Your task to perform on an android device: turn on bluetooth scan Image 0: 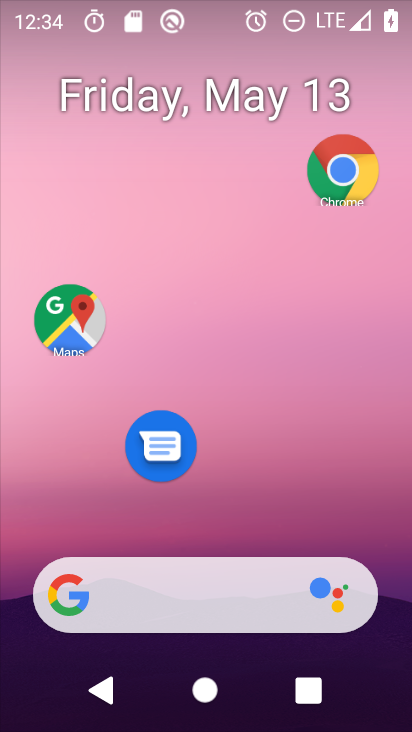
Step 0: drag from (250, 547) to (268, 28)
Your task to perform on an android device: turn on bluetooth scan Image 1: 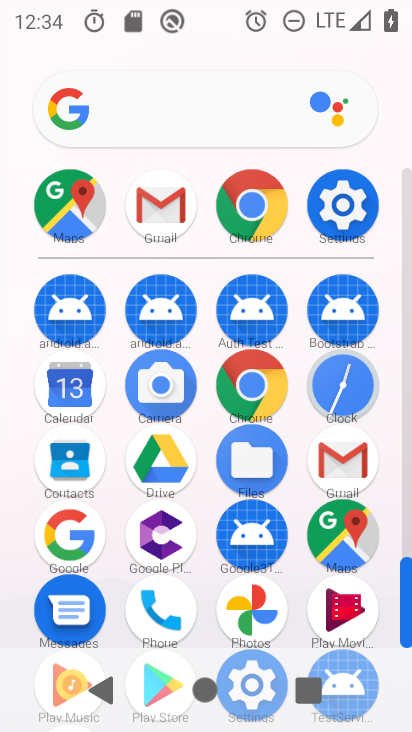
Step 1: click (353, 218)
Your task to perform on an android device: turn on bluetooth scan Image 2: 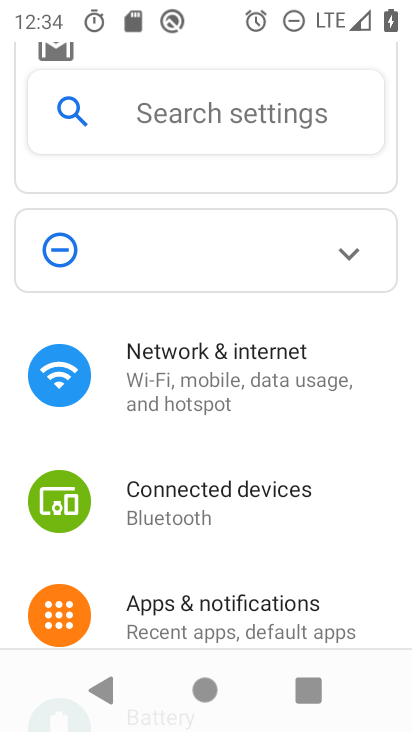
Step 2: drag from (251, 567) to (257, 134)
Your task to perform on an android device: turn on bluetooth scan Image 3: 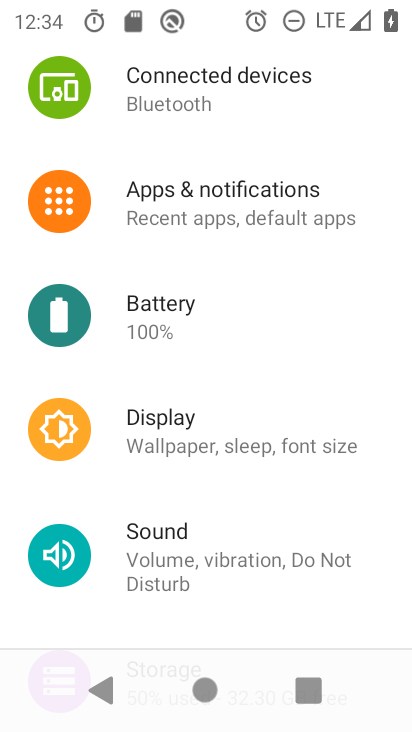
Step 3: drag from (264, 594) to (278, 134)
Your task to perform on an android device: turn on bluetooth scan Image 4: 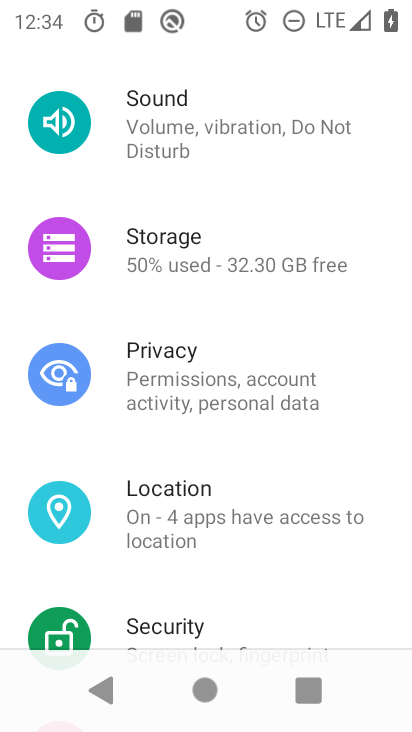
Step 4: click (256, 522)
Your task to perform on an android device: turn on bluetooth scan Image 5: 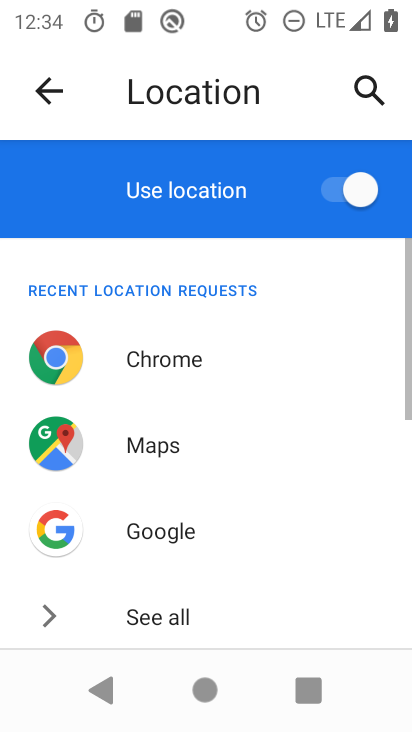
Step 5: drag from (318, 614) to (350, 196)
Your task to perform on an android device: turn on bluetooth scan Image 6: 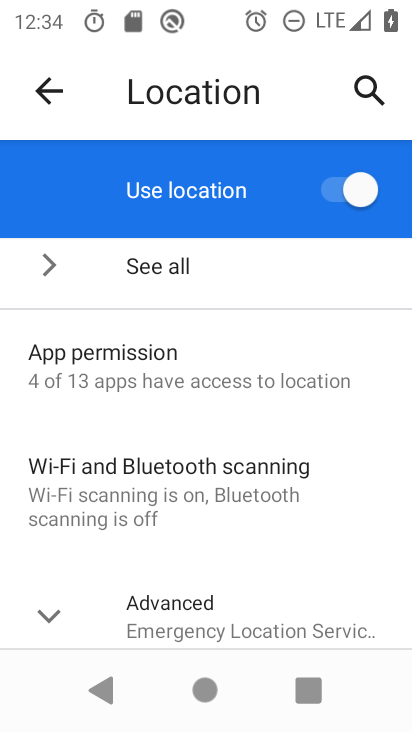
Step 6: click (274, 529)
Your task to perform on an android device: turn on bluetooth scan Image 7: 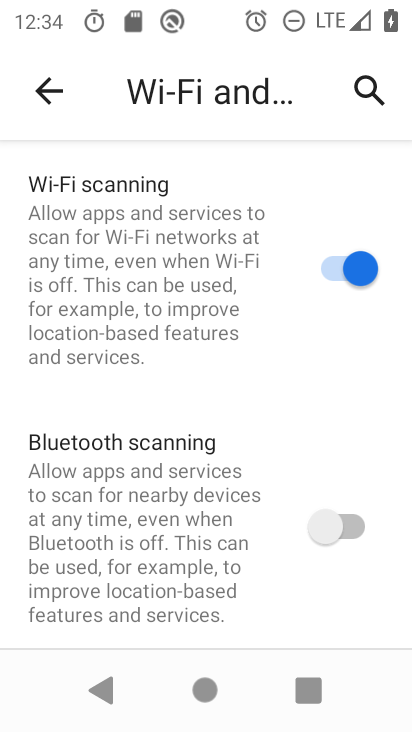
Step 7: click (349, 526)
Your task to perform on an android device: turn on bluetooth scan Image 8: 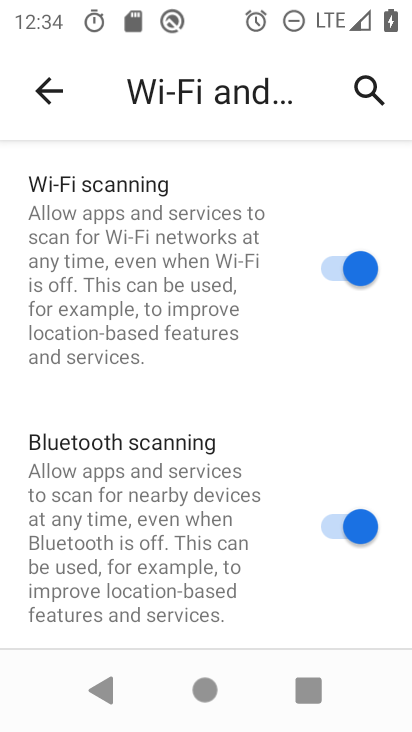
Step 8: task complete